Your task to perform on an android device: turn off priority inbox in the gmail app Image 0: 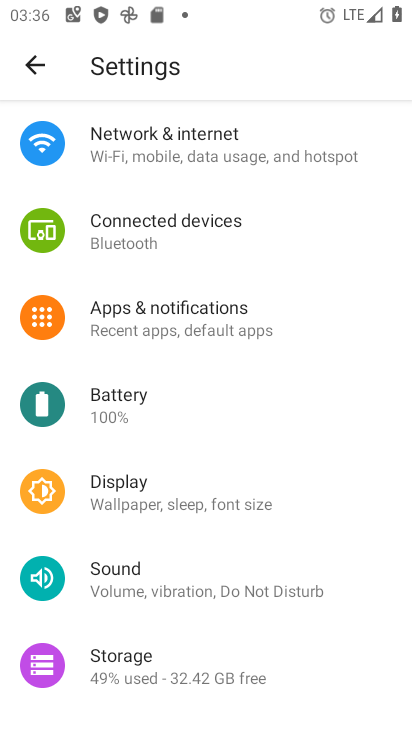
Step 0: press home button
Your task to perform on an android device: turn off priority inbox in the gmail app Image 1: 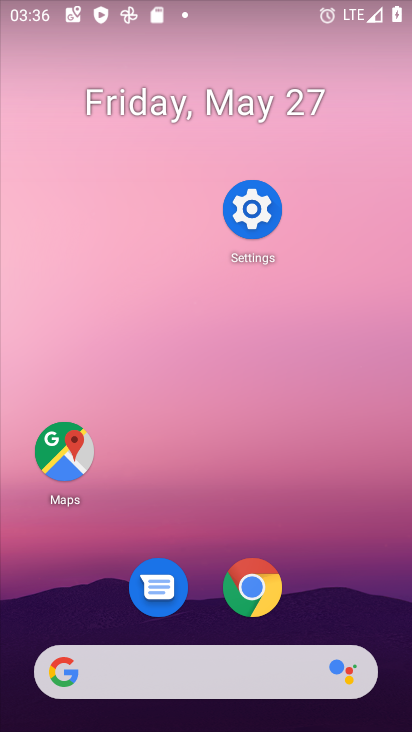
Step 1: drag from (347, 632) to (365, 10)
Your task to perform on an android device: turn off priority inbox in the gmail app Image 2: 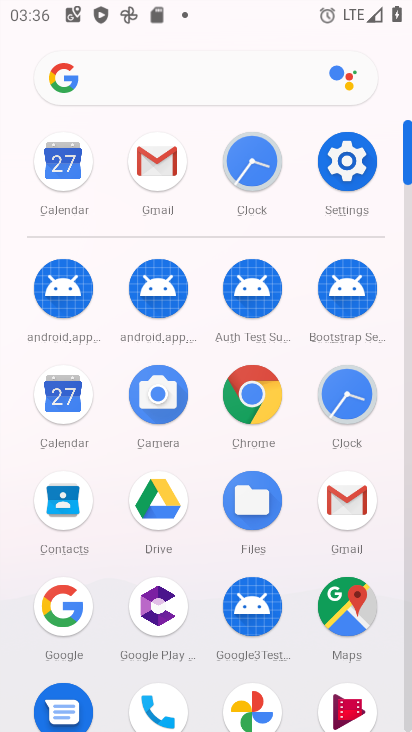
Step 2: click (157, 171)
Your task to perform on an android device: turn off priority inbox in the gmail app Image 3: 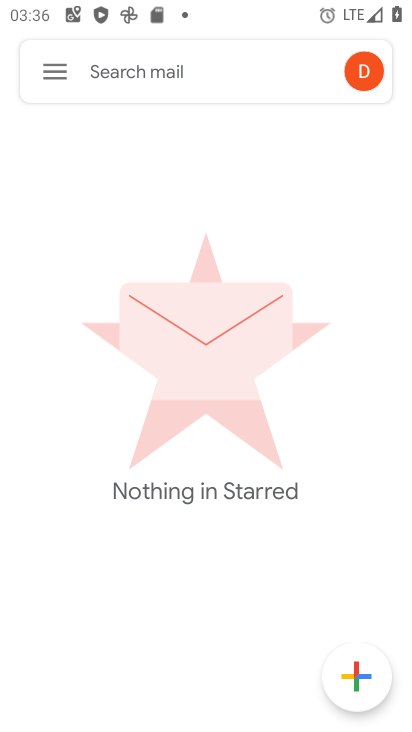
Step 3: click (36, 72)
Your task to perform on an android device: turn off priority inbox in the gmail app Image 4: 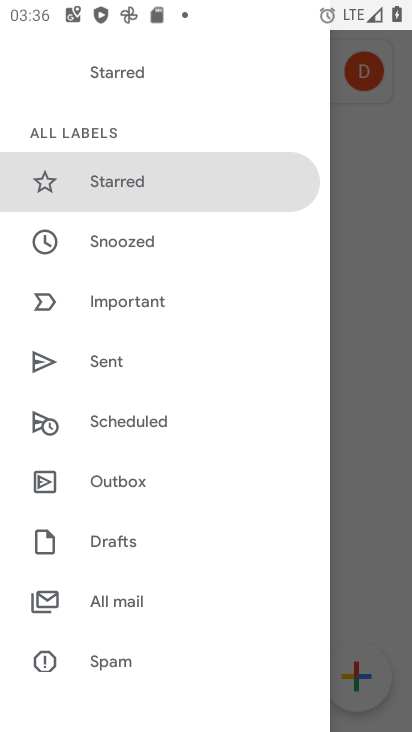
Step 4: drag from (259, 622) to (264, 161)
Your task to perform on an android device: turn off priority inbox in the gmail app Image 5: 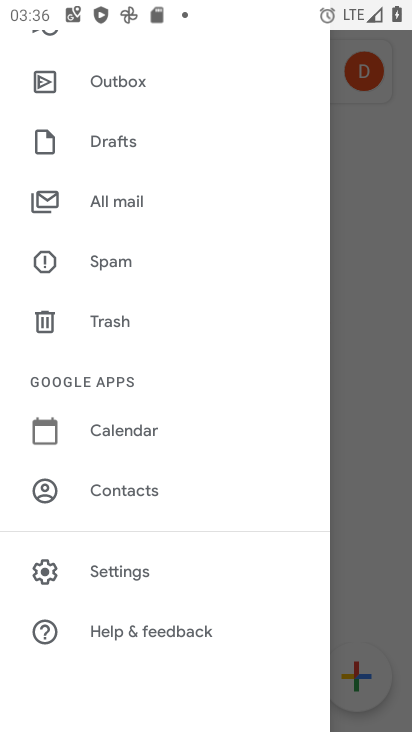
Step 5: click (120, 569)
Your task to perform on an android device: turn off priority inbox in the gmail app Image 6: 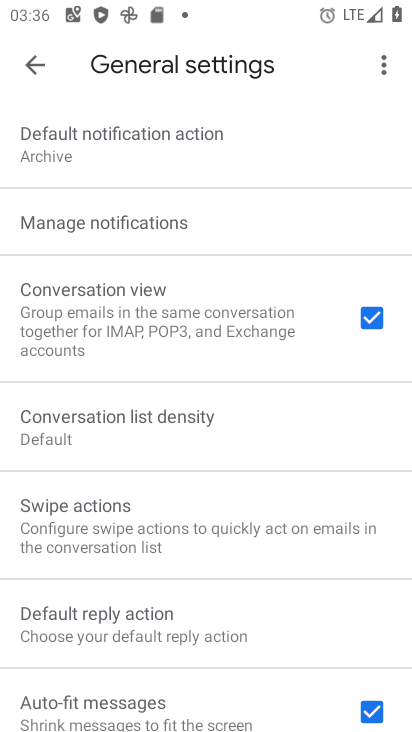
Step 6: click (32, 69)
Your task to perform on an android device: turn off priority inbox in the gmail app Image 7: 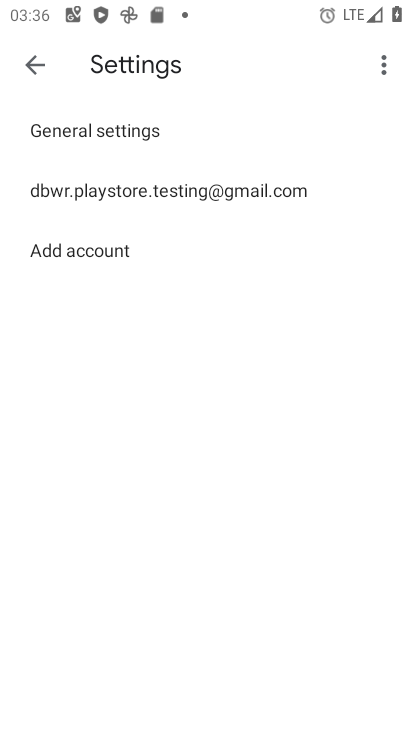
Step 7: click (101, 193)
Your task to perform on an android device: turn off priority inbox in the gmail app Image 8: 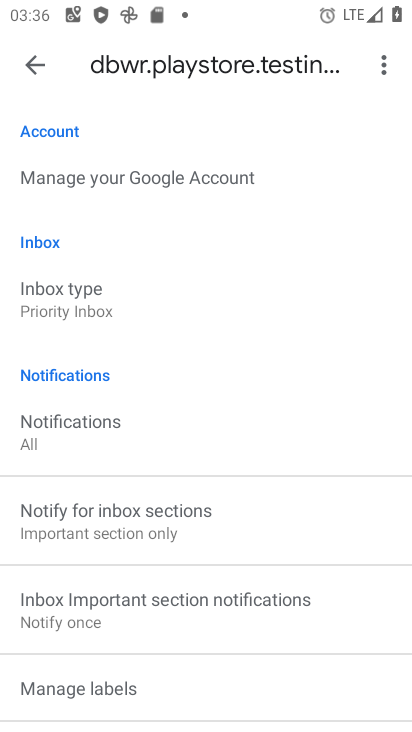
Step 8: click (71, 290)
Your task to perform on an android device: turn off priority inbox in the gmail app Image 9: 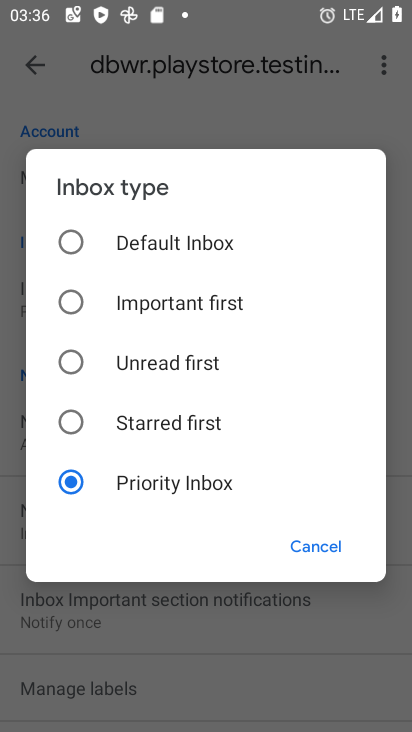
Step 9: click (83, 246)
Your task to perform on an android device: turn off priority inbox in the gmail app Image 10: 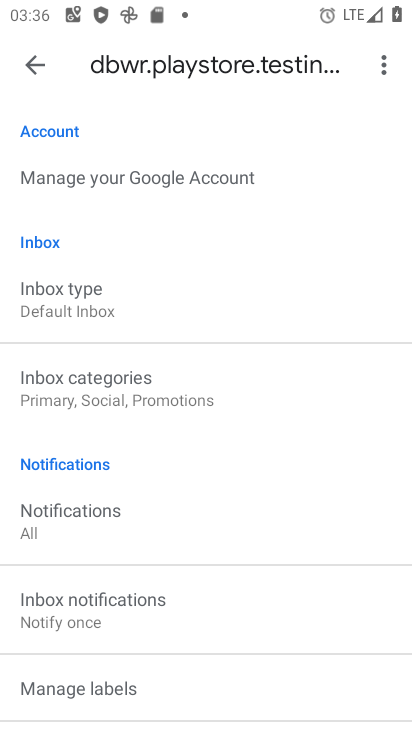
Step 10: task complete